Your task to perform on an android device: turn on airplane mode Image 0: 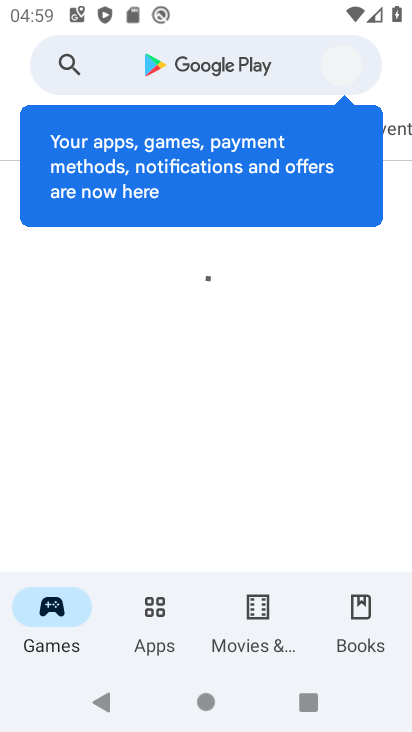
Step 0: press home button
Your task to perform on an android device: turn on airplane mode Image 1: 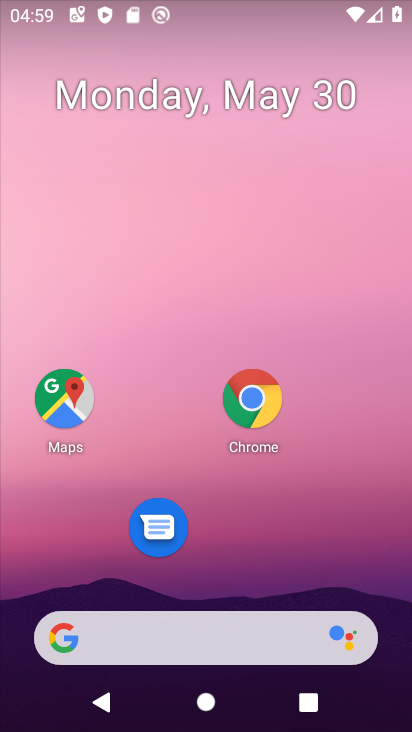
Step 1: drag from (229, 710) to (239, 77)
Your task to perform on an android device: turn on airplane mode Image 2: 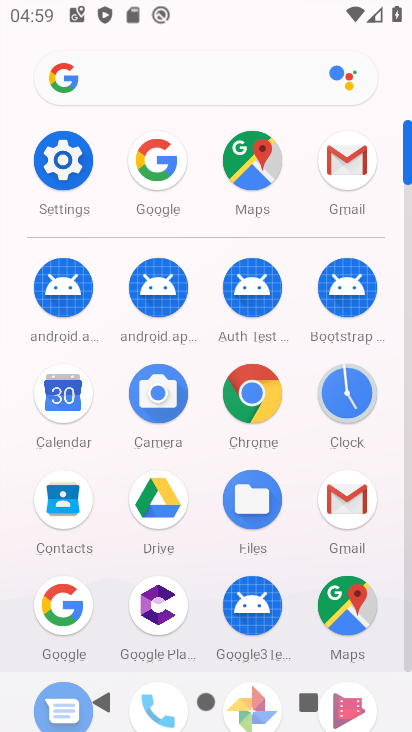
Step 2: click (58, 159)
Your task to perform on an android device: turn on airplane mode Image 3: 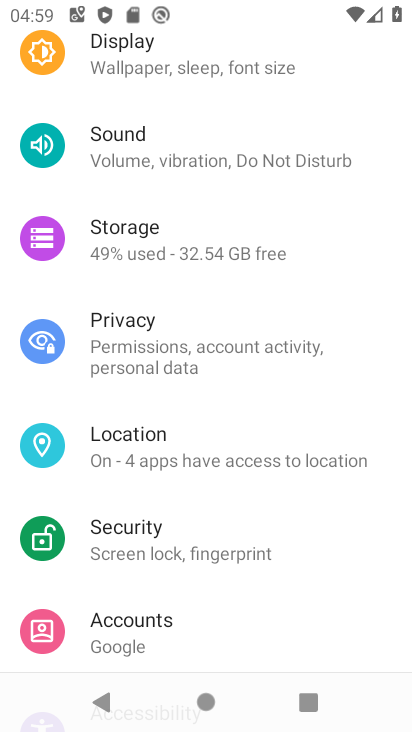
Step 3: drag from (241, 152) to (242, 615)
Your task to perform on an android device: turn on airplane mode Image 4: 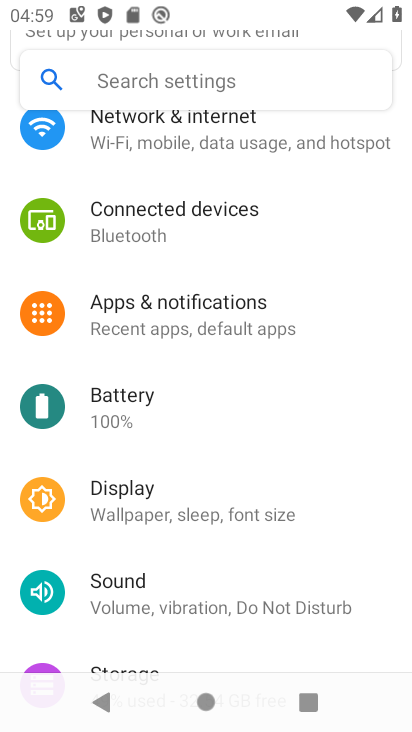
Step 4: drag from (208, 177) to (202, 609)
Your task to perform on an android device: turn on airplane mode Image 5: 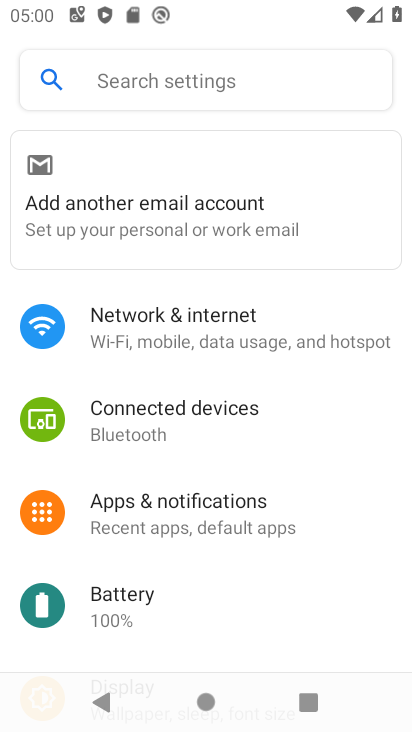
Step 5: click (147, 329)
Your task to perform on an android device: turn on airplane mode Image 6: 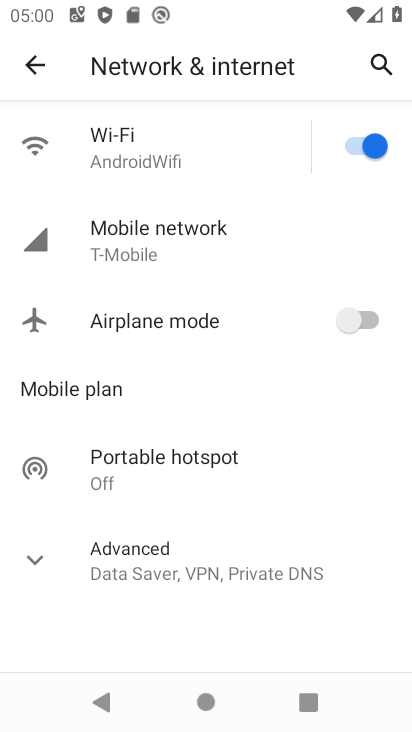
Step 6: click (374, 323)
Your task to perform on an android device: turn on airplane mode Image 7: 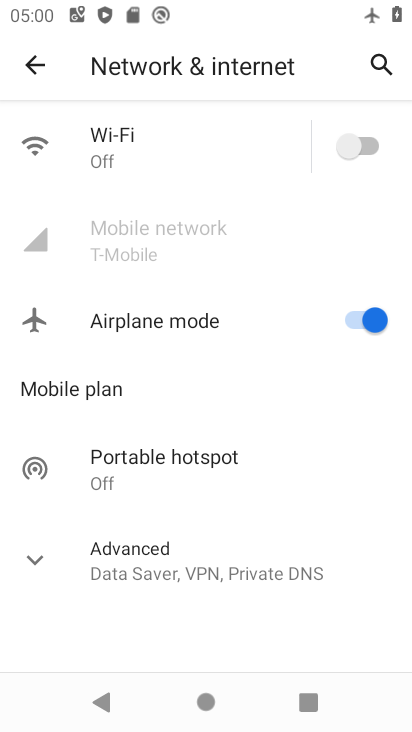
Step 7: task complete